Your task to perform on an android device: set the stopwatch Image 0: 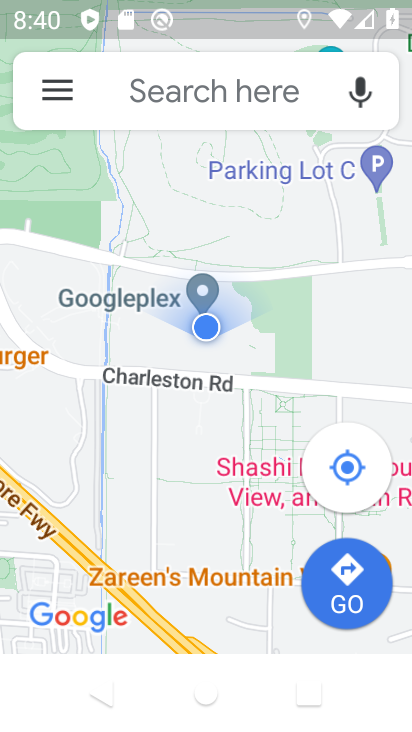
Step 0: press home button
Your task to perform on an android device: set the stopwatch Image 1: 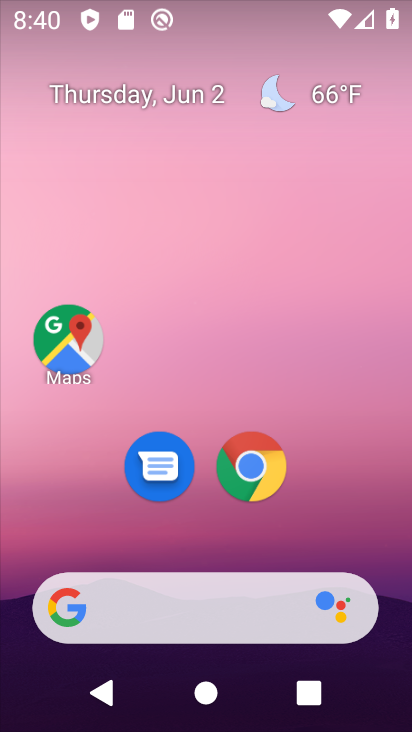
Step 1: drag from (20, 613) to (378, 101)
Your task to perform on an android device: set the stopwatch Image 2: 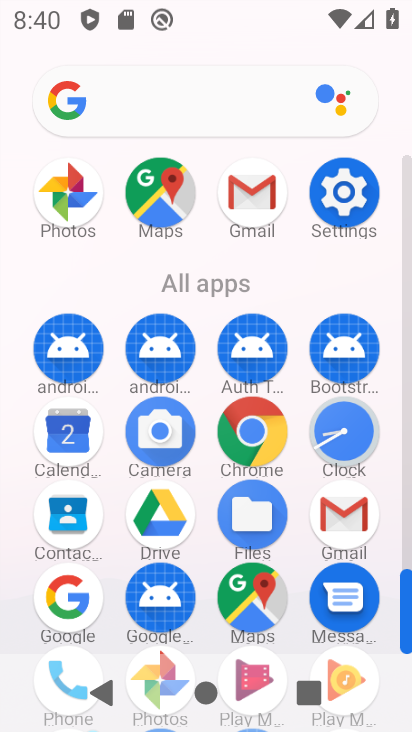
Step 2: click (347, 444)
Your task to perform on an android device: set the stopwatch Image 3: 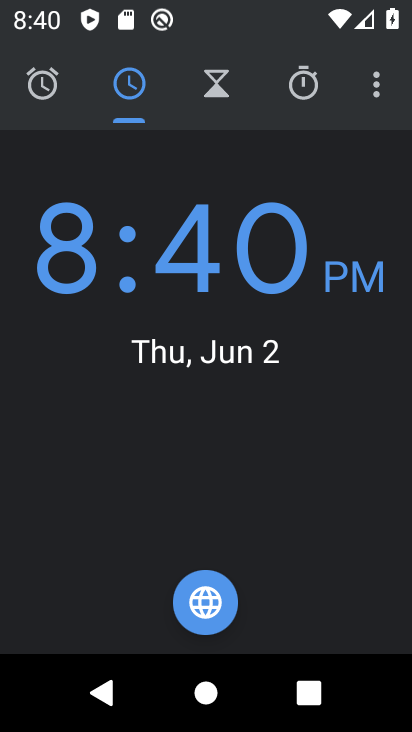
Step 3: click (293, 93)
Your task to perform on an android device: set the stopwatch Image 4: 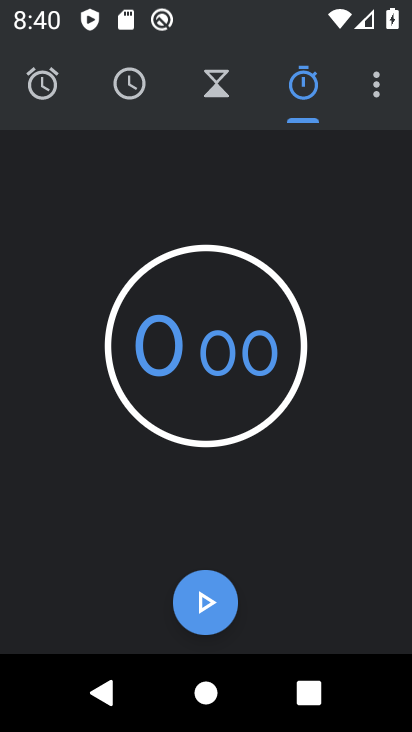
Step 4: click (195, 608)
Your task to perform on an android device: set the stopwatch Image 5: 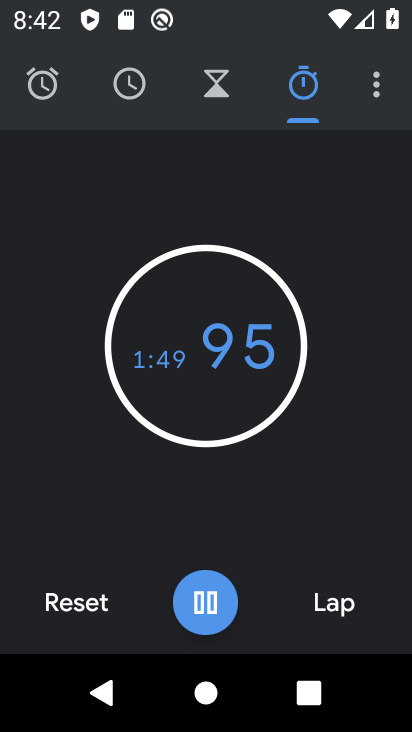
Step 5: task complete